Your task to perform on an android device: open app "Cash App" Image 0: 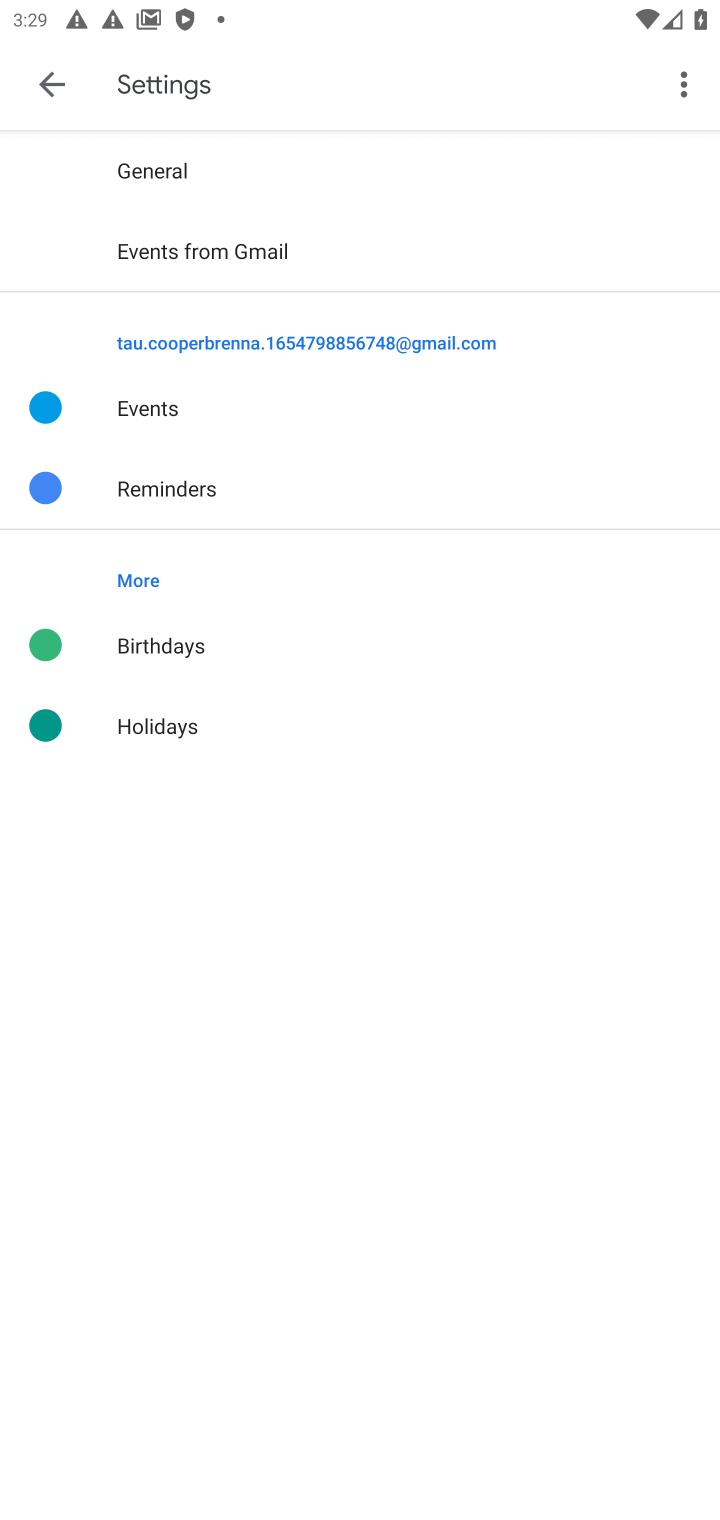
Step 0: press home button
Your task to perform on an android device: open app "Cash App" Image 1: 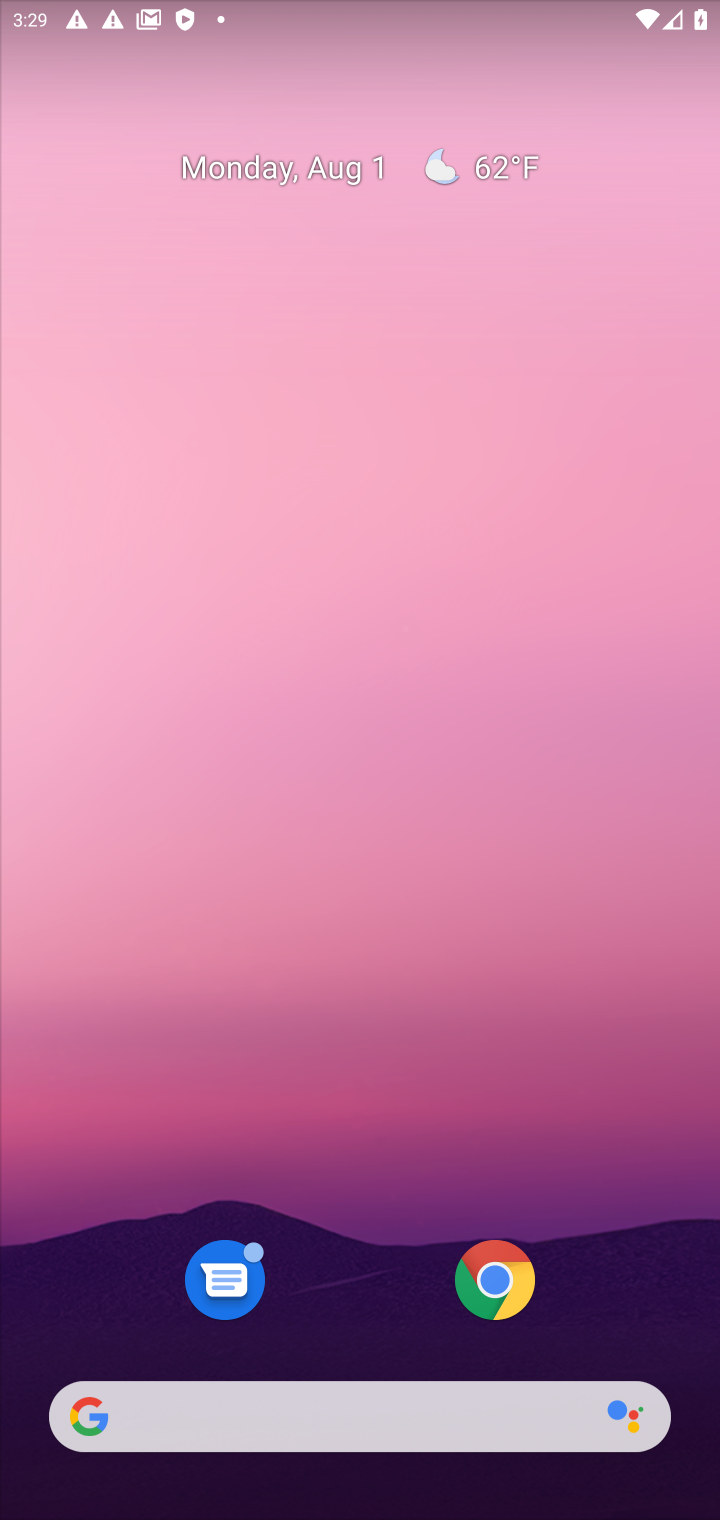
Step 1: drag from (344, 1321) to (405, 71)
Your task to perform on an android device: open app "Cash App" Image 2: 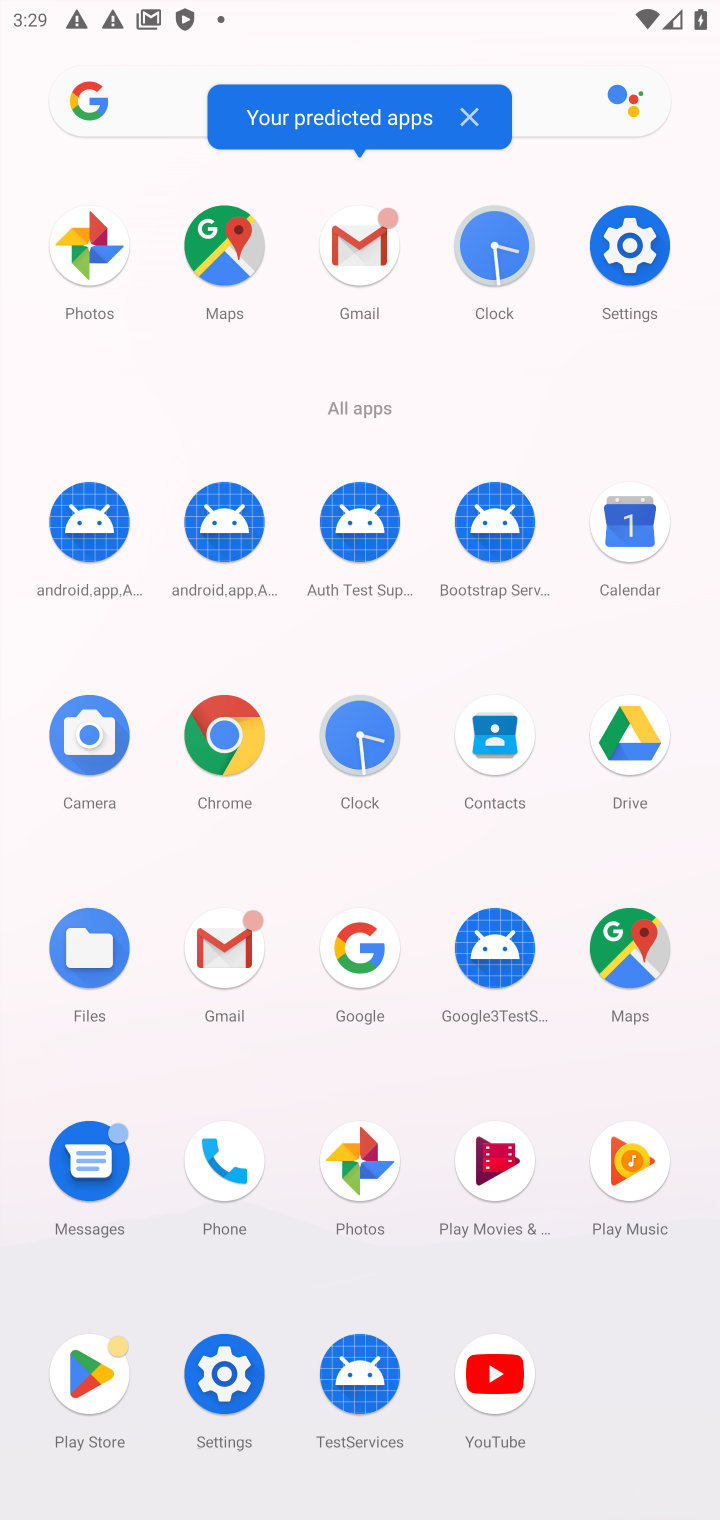
Step 2: click (78, 1368)
Your task to perform on an android device: open app "Cash App" Image 3: 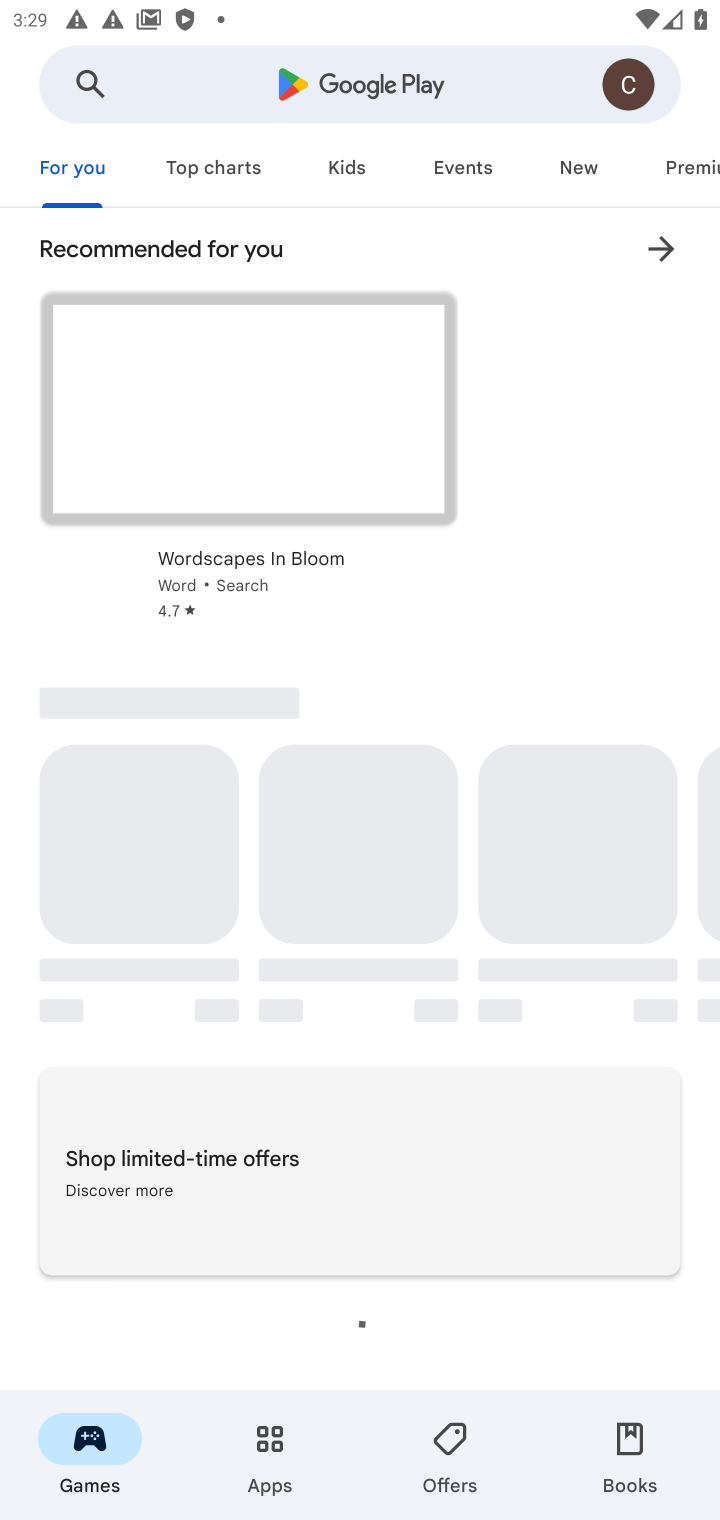
Step 3: click (230, 83)
Your task to perform on an android device: open app "Cash App" Image 4: 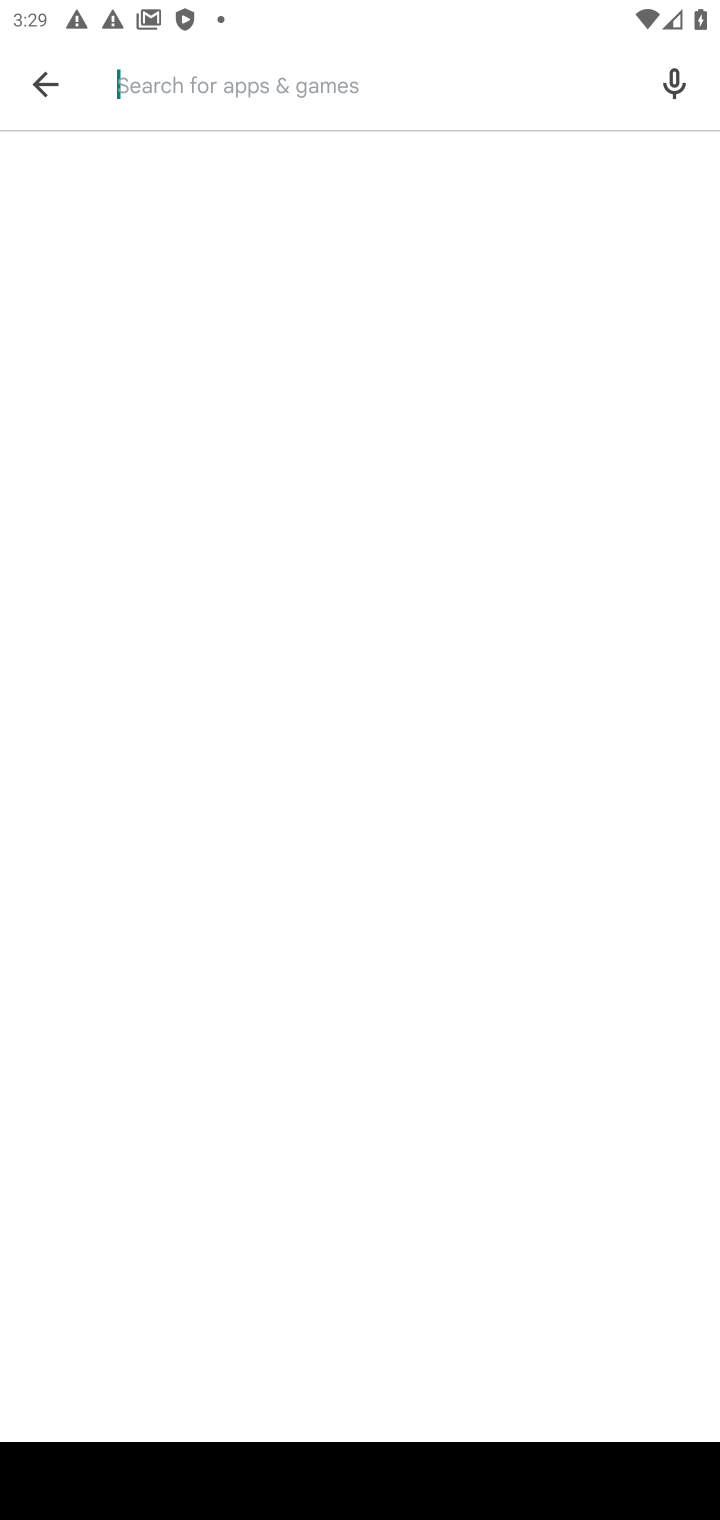
Step 4: type "Cash App"
Your task to perform on an android device: open app "Cash App" Image 5: 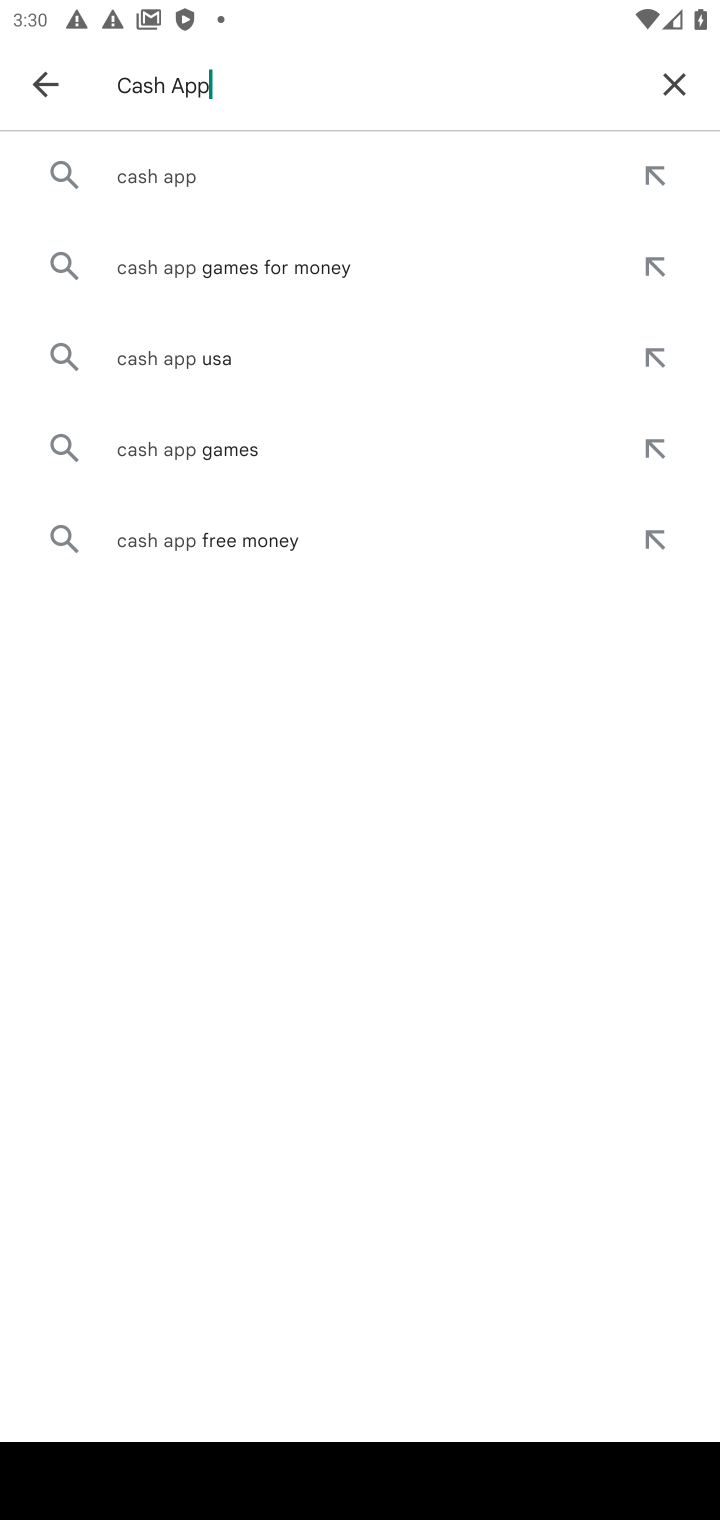
Step 5: click (160, 182)
Your task to perform on an android device: open app "Cash App" Image 6: 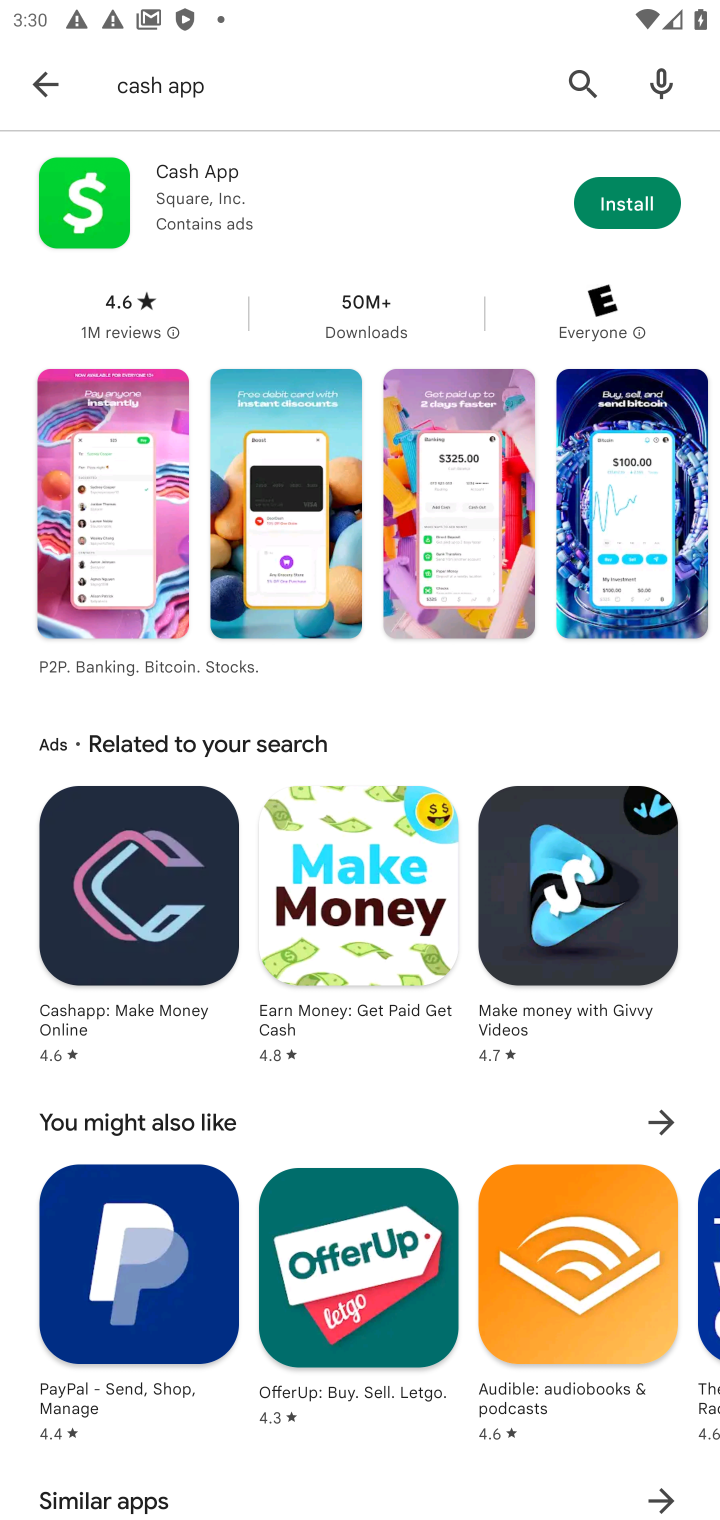
Step 6: task complete